Your task to perform on an android device: turn on priority inbox in the gmail app Image 0: 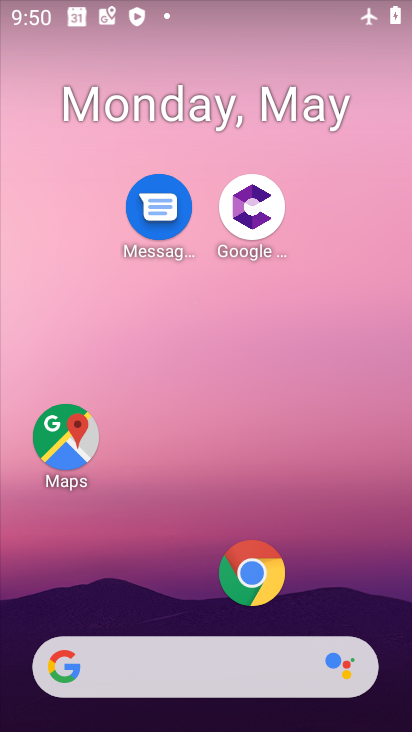
Step 0: drag from (252, 703) to (391, 5)
Your task to perform on an android device: turn on priority inbox in the gmail app Image 1: 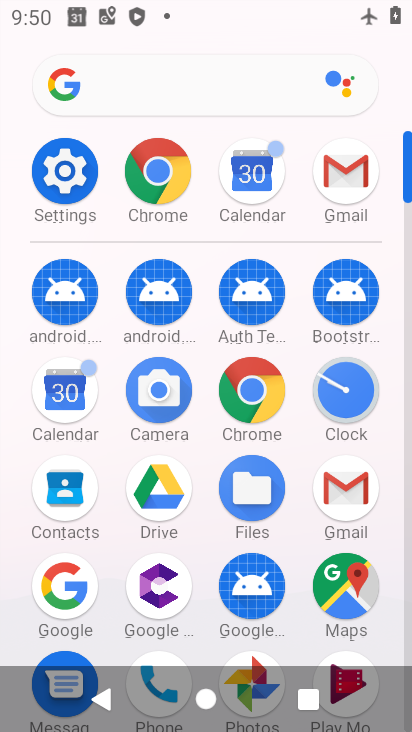
Step 1: click (346, 492)
Your task to perform on an android device: turn on priority inbox in the gmail app Image 2: 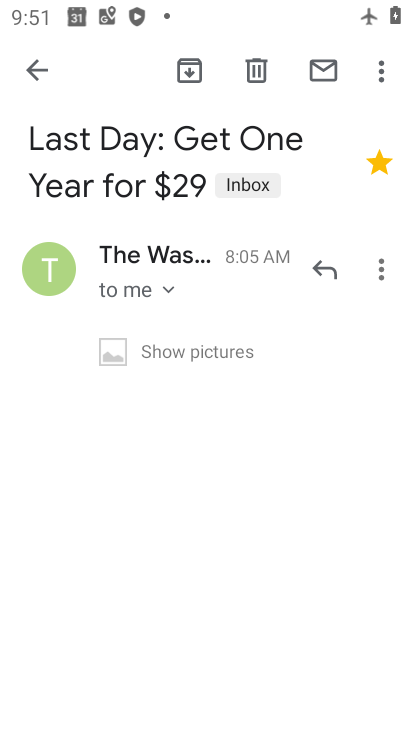
Step 2: click (37, 63)
Your task to perform on an android device: turn on priority inbox in the gmail app Image 3: 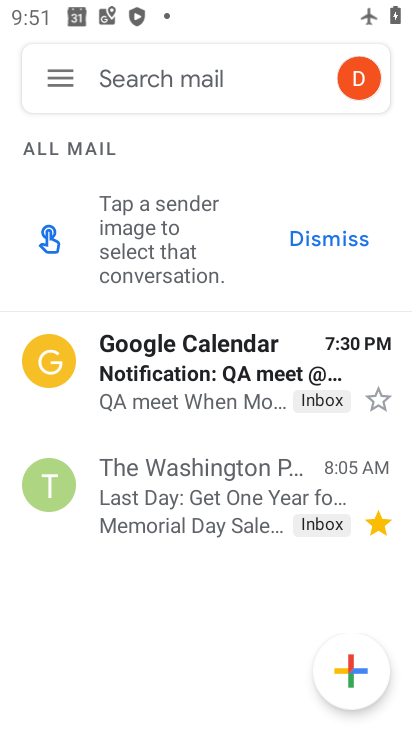
Step 3: click (52, 74)
Your task to perform on an android device: turn on priority inbox in the gmail app Image 4: 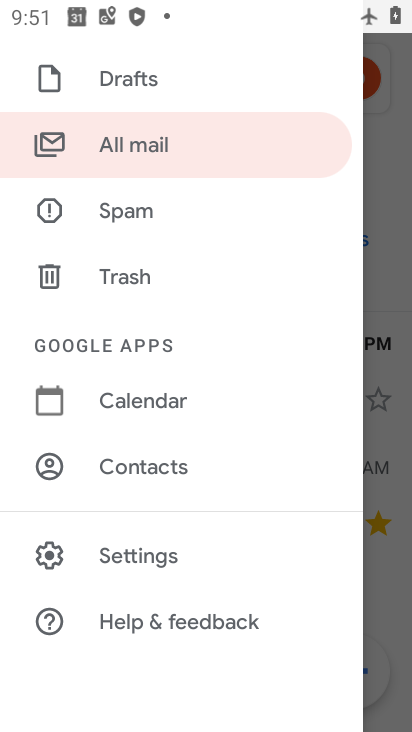
Step 4: click (102, 552)
Your task to perform on an android device: turn on priority inbox in the gmail app Image 5: 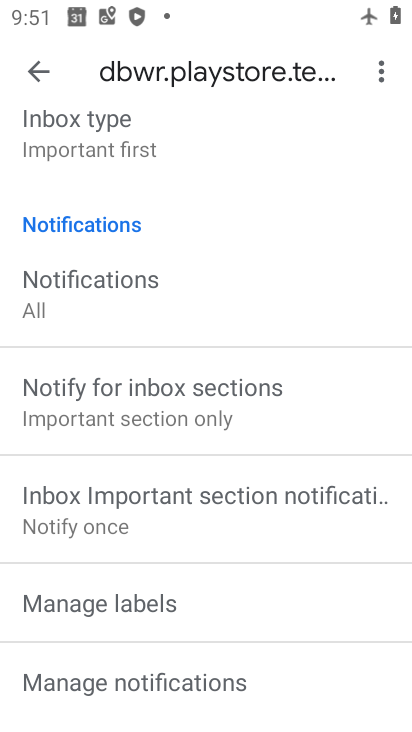
Step 5: drag from (138, 243) to (128, 554)
Your task to perform on an android device: turn on priority inbox in the gmail app Image 6: 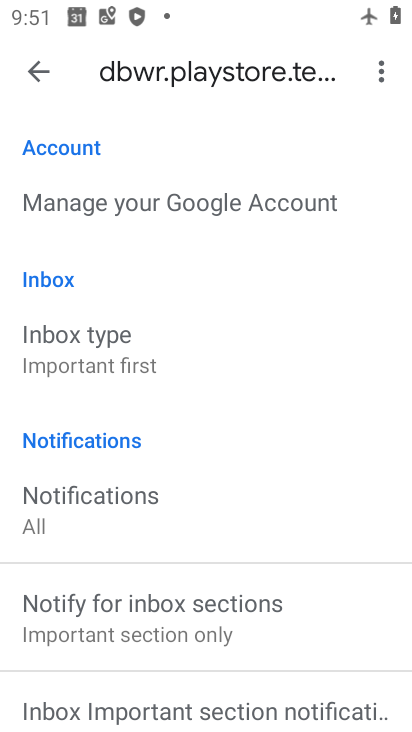
Step 6: click (126, 355)
Your task to perform on an android device: turn on priority inbox in the gmail app Image 7: 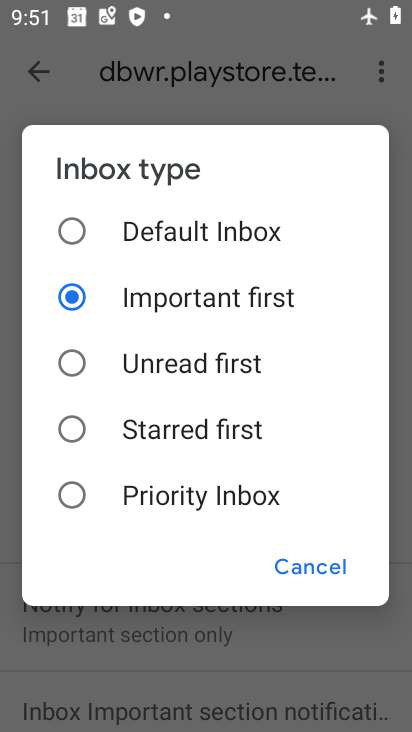
Step 7: click (124, 505)
Your task to perform on an android device: turn on priority inbox in the gmail app Image 8: 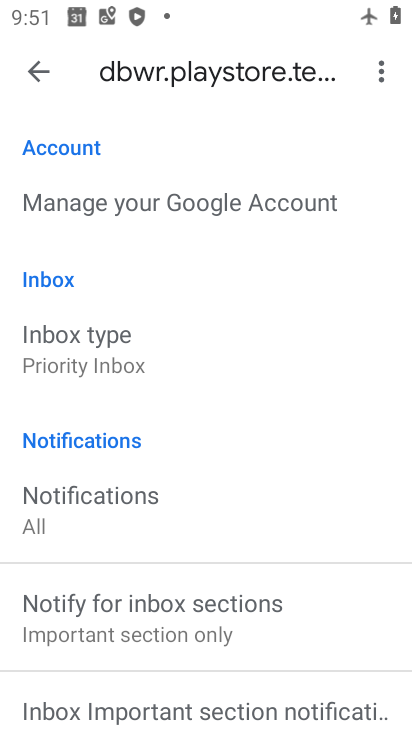
Step 8: task complete